Your task to perform on an android device: Open the web browser Image 0: 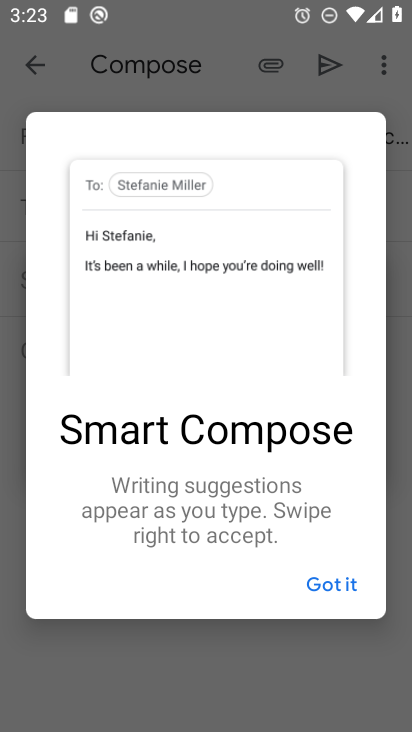
Step 0: press home button
Your task to perform on an android device: Open the web browser Image 1: 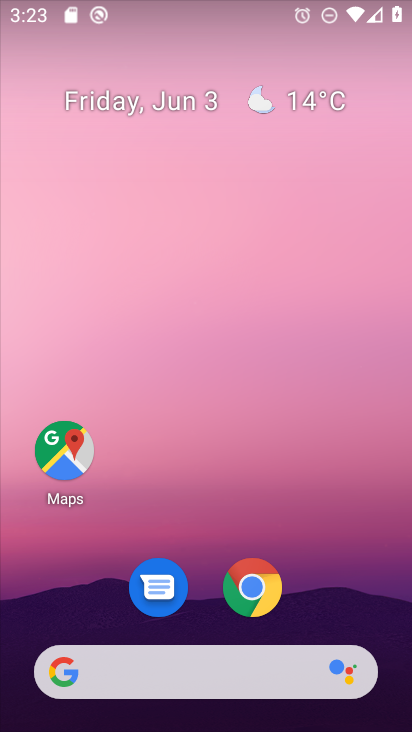
Step 1: click (253, 592)
Your task to perform on an android device: Open the web browser Image 2: 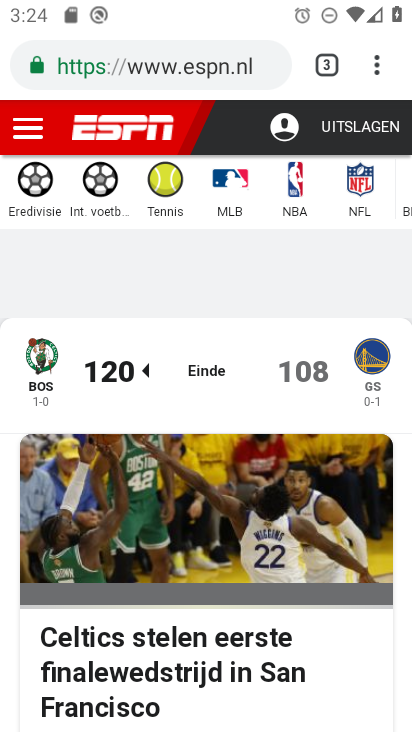
Step 2: task complete